Your task to perform on an android device: Go to internet settings Image 0: 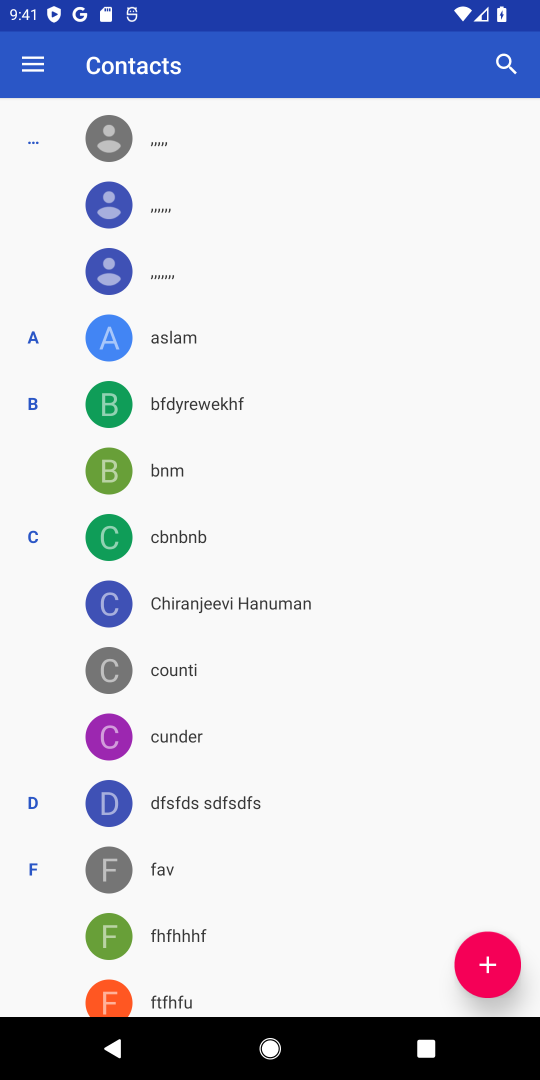
Step 0: press home button
Your task to perform on an android device: Go to internet settings Image 1: 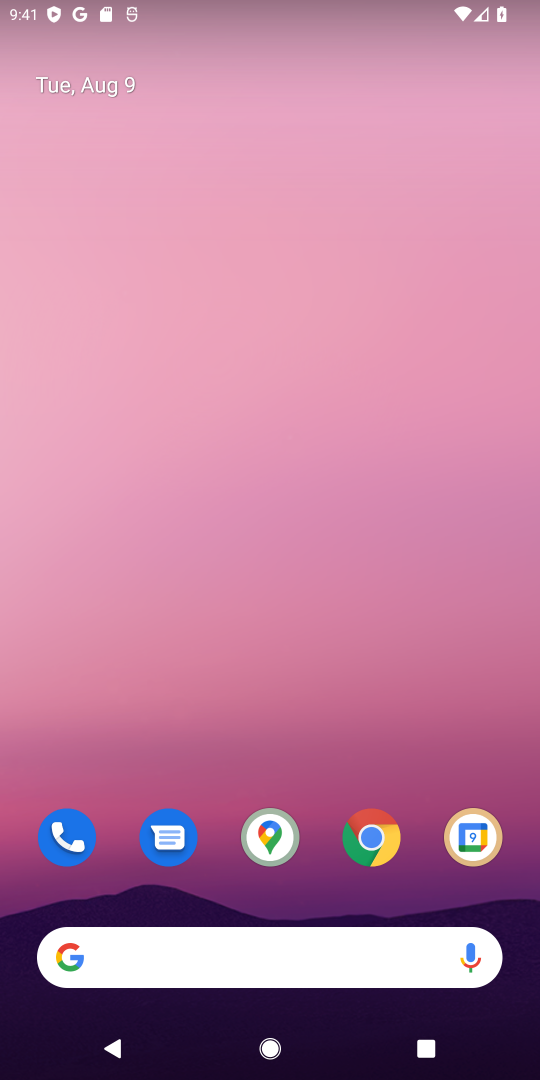
Step 1: drag from (315, 909) to (317, 135)
Your task to perform on an android device: Go to internet settings Image 2: 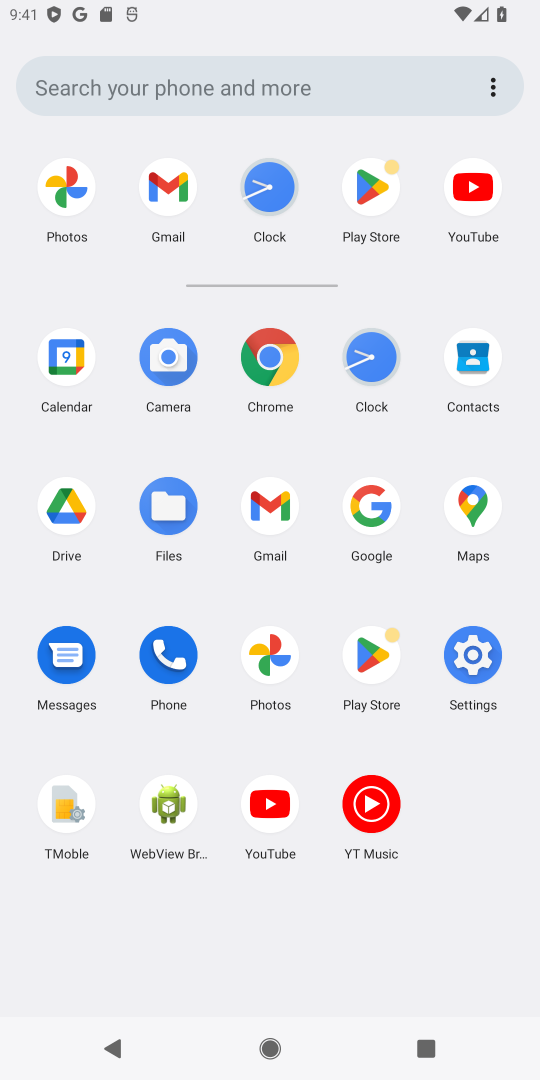
Step 2: click (462, 665)
Your task to perform on an android device: Go to internet settings Image 3: 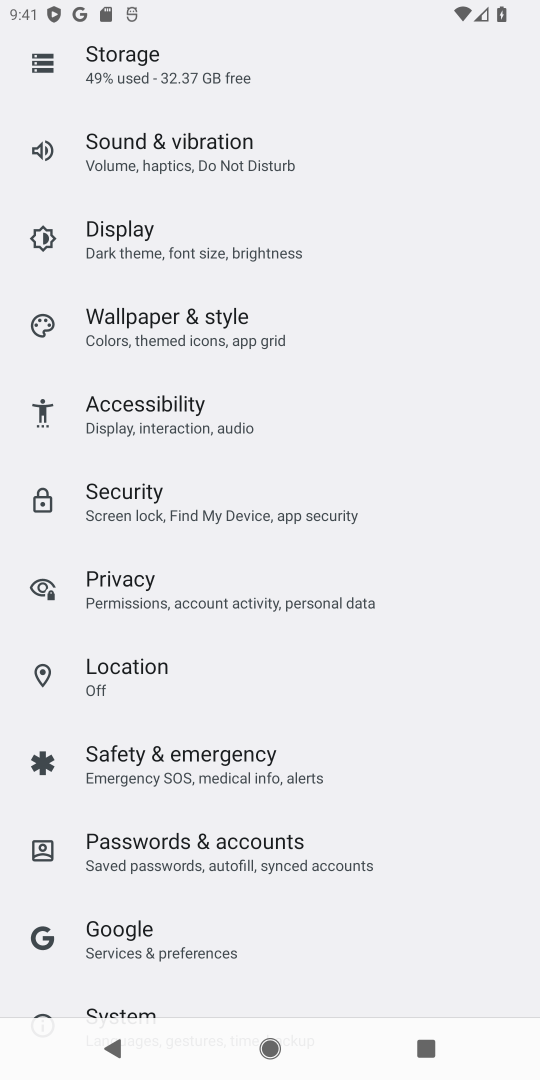
Step 3: drag from (197, 124) to (164, 832)
Your task to perform on an android device: Go to internet settings Image 4: 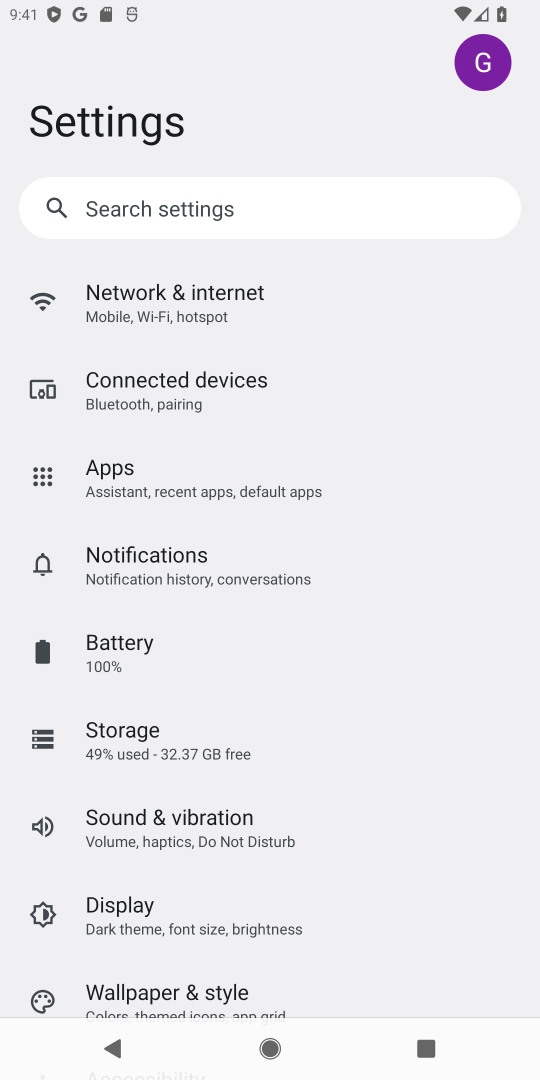
Step 4: click (181, 306)
Your task to perform on an android device: Go to internet settings Image 5: 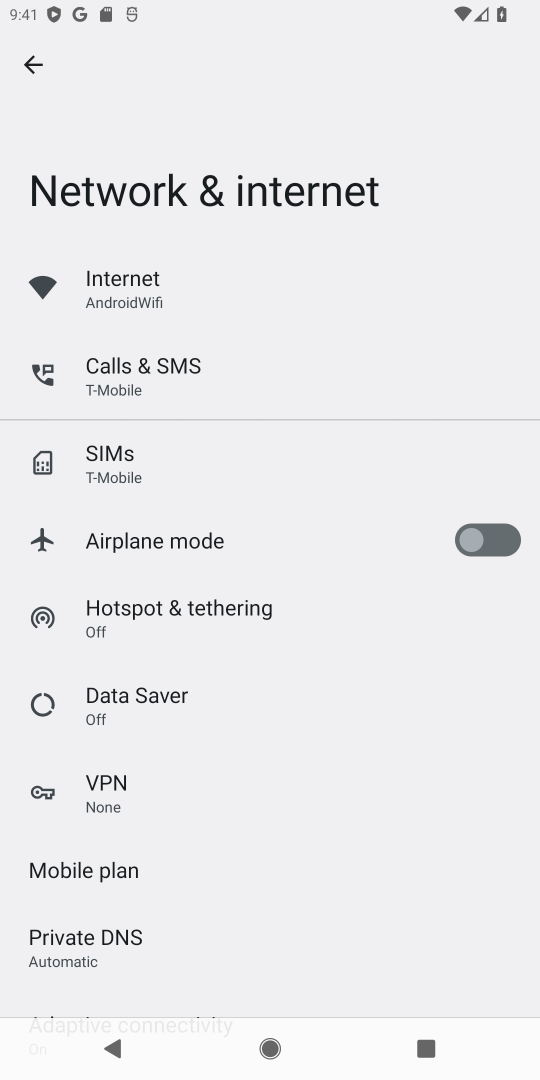
Step 5: click (122, 280)
Your task to perform on an android device: Go to internet settings Image 6: 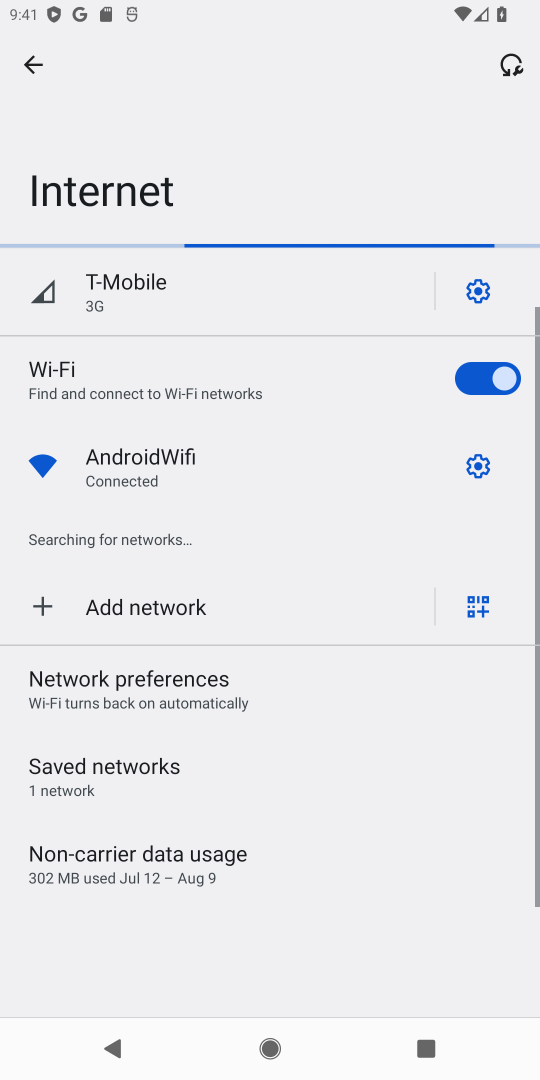
Step 6: task complete